Your task to perform on an android device: Go to CNN.com Image 0: 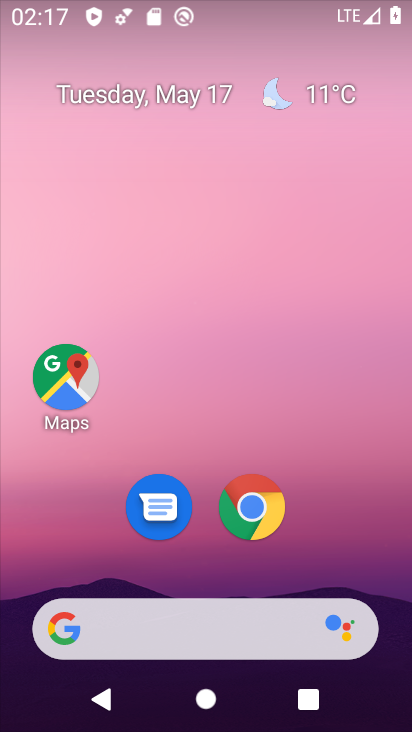
Step 0: click (177, 639)
Your task to perform on an android device: Go to CNN.com Image 1: 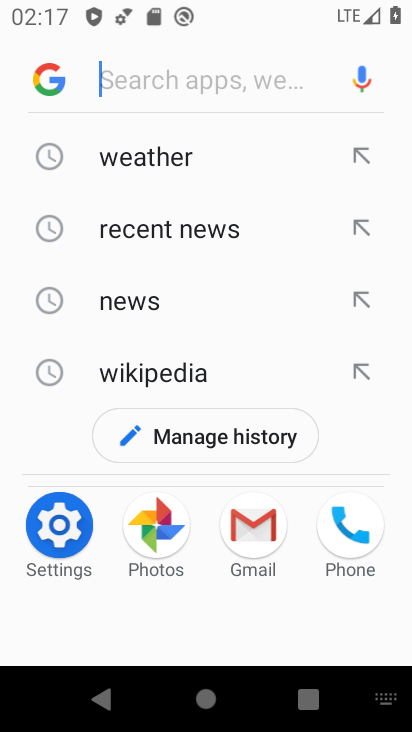
Step 1: type "cnn.com"
Your task to perform on an android device: Go to CNN.com Image 2: 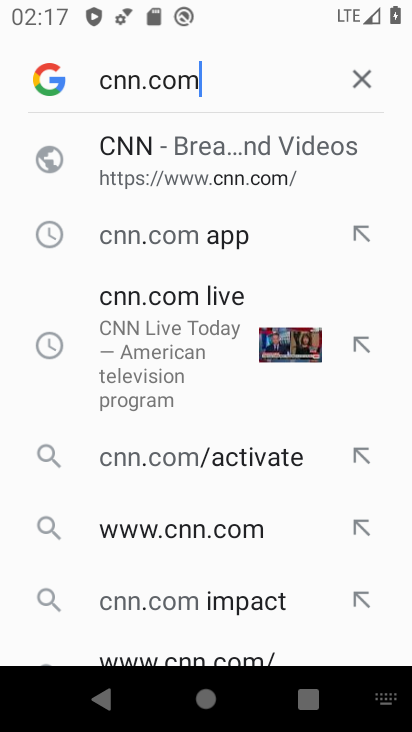
Step 2: click (312, 164)
Your task to perform on an android device: Go to CNN.com Image 3: 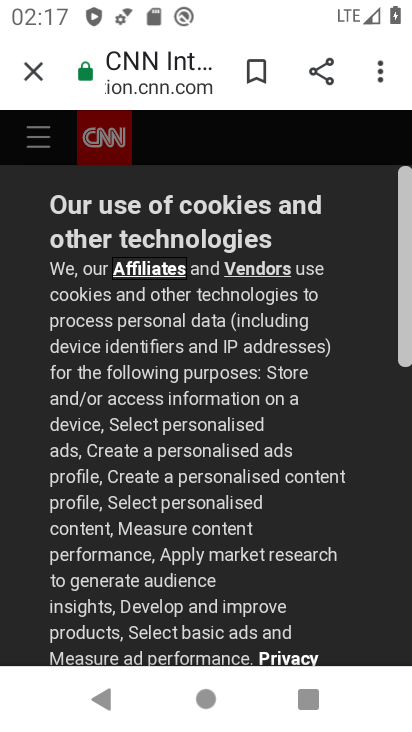
Step 3: task complete